Your task to perform on an android device: Open Wikipedia Image 0: 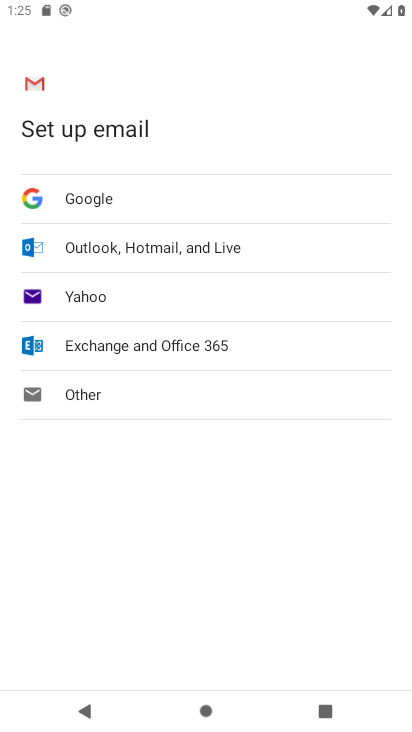
Step 0: press home button
Your task to perform on an android device: Open Wikipedia Image 1: 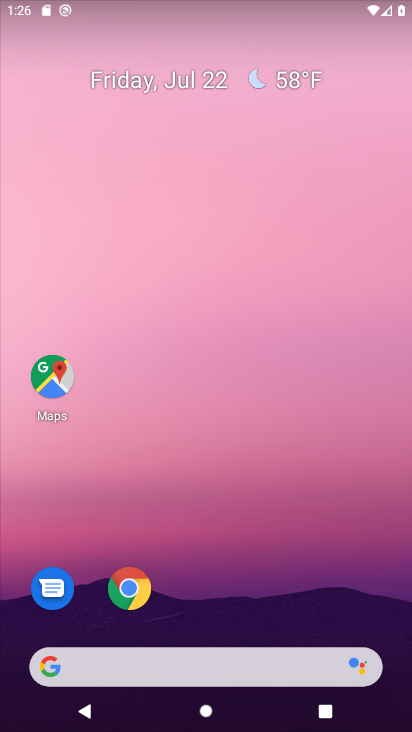
Step 1: drag from (327, 649) to (225, 71)
Your task to perform on an android device: Open Wikipedia Image 2: 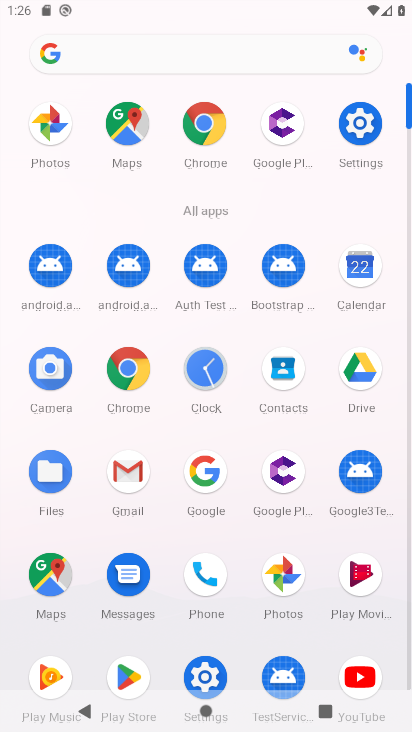
Step 2: click (182, 153)
Your task to perform on an android device: Open Wikipedia Image 3: 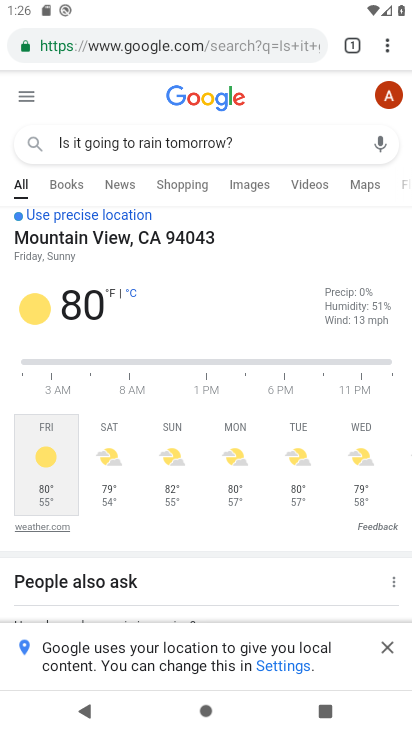
Step 3: click (268, 54)
Your task to perform on an android device: Open Wikipedia Image 4: 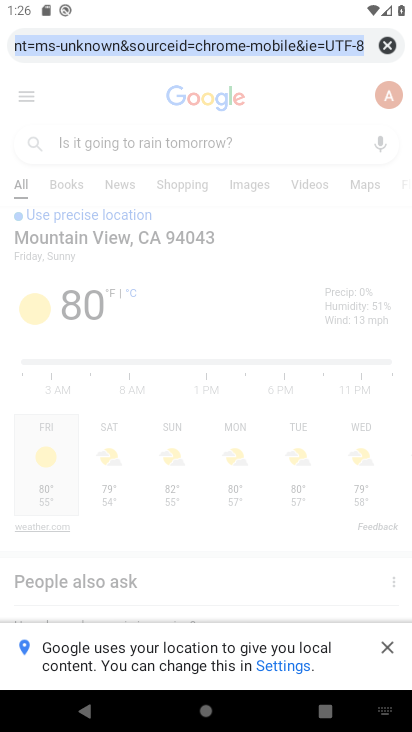
Step 4: type "Wikipedia"
Your task to perform on an android device: Open Wikipedia Image 5: 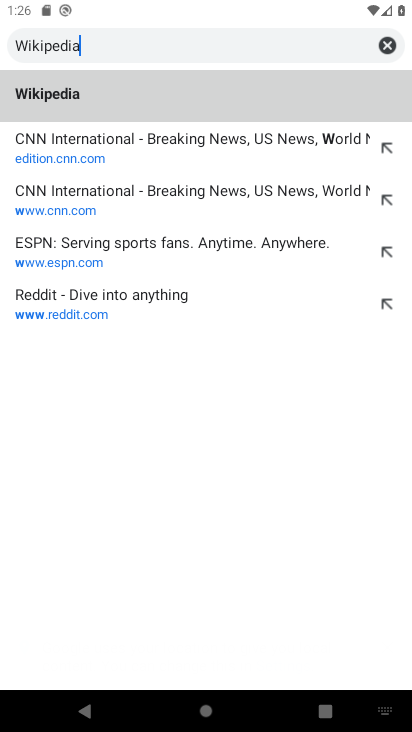
Step 5: type ""
Your task to perform on an android device: Open Wikipedia Image 6: 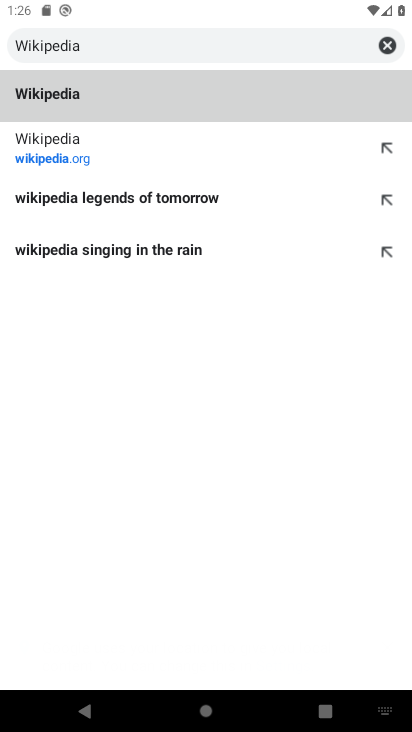
Step 6: click (171, 161)
Your task to perform on an android device: Open Wikipedia Image 7: 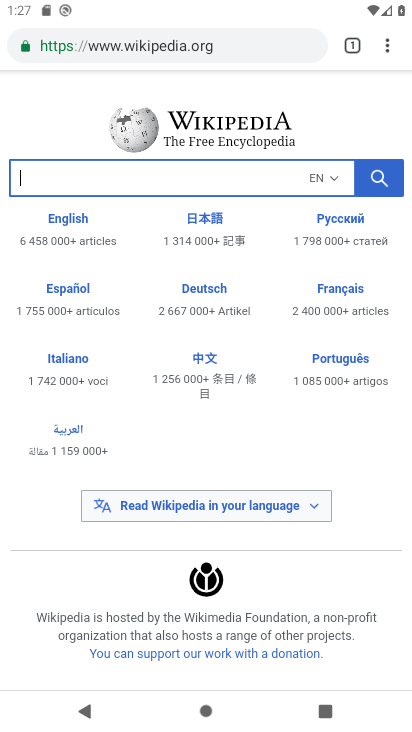
Step 7: task complete